Your task to perform on an android device: Open Maps and search for coffee Image 0: 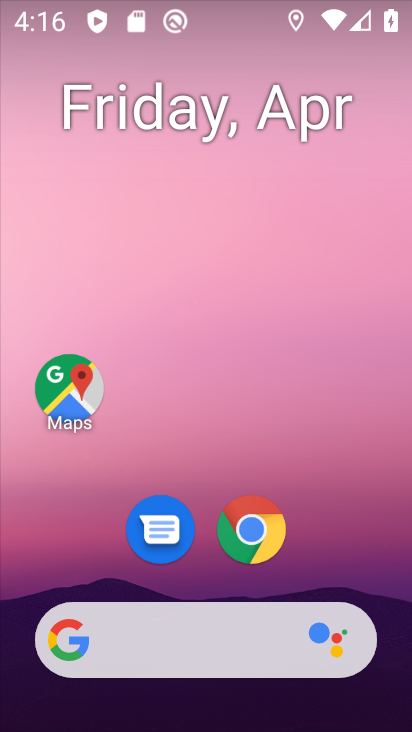
Step 0: drag from (231, 724) to (220, 151)
Your task to perform on an android device: Open Maps and search for coffee Image 1: 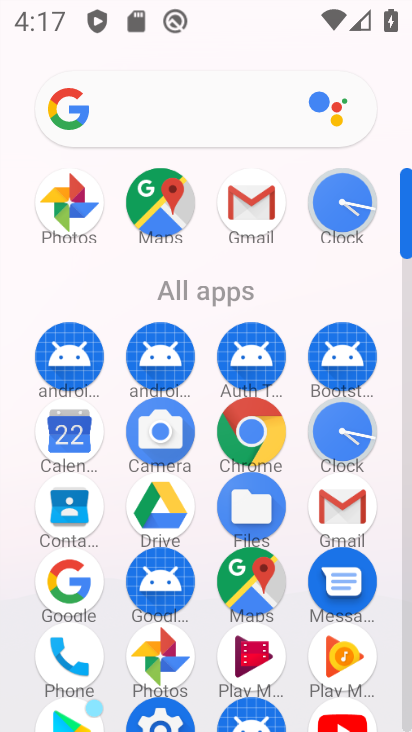
Step 1: click (248, 582)
Your task to perform on an android device: Open Maps and search for coffee Image 2: 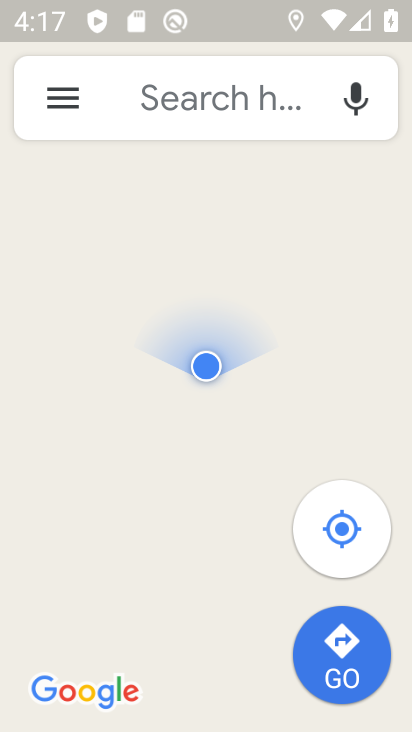
Step 2: click (163, 117)
Your task to perform on an android device: Open Maps and search for coffee Image 3: 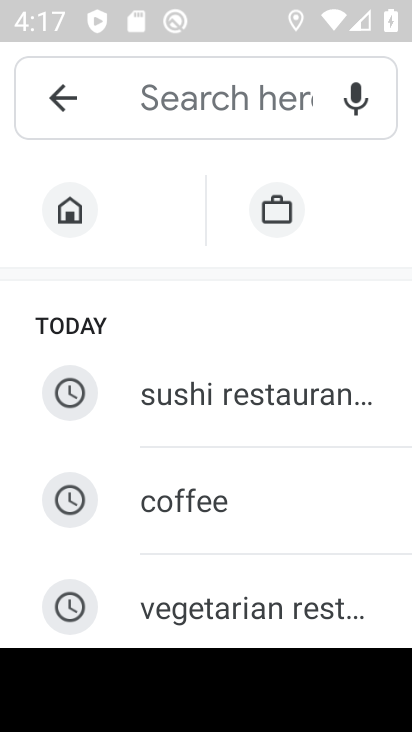
Step 3: type "coffee"
Your task to perform on an android device: Open Maps and search for coffee Image 4: 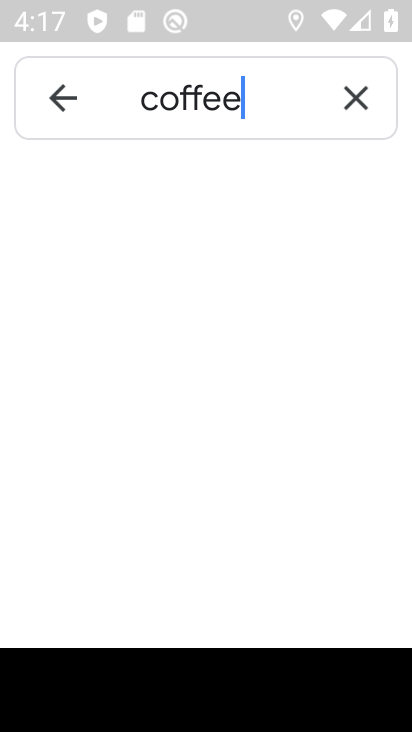
Step 4: type ""
Your task to perform on an android device: Open Maps and search for coffee Image 5: 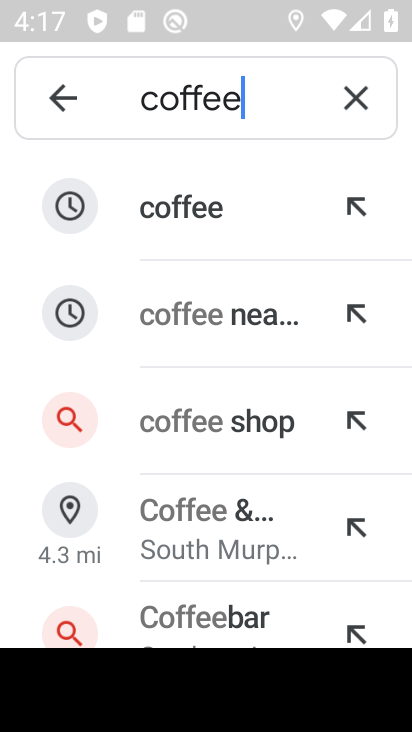
Step 5: click (179, 208)
Your task to perform on an android device: Open Maps and search for coffee Image 6: 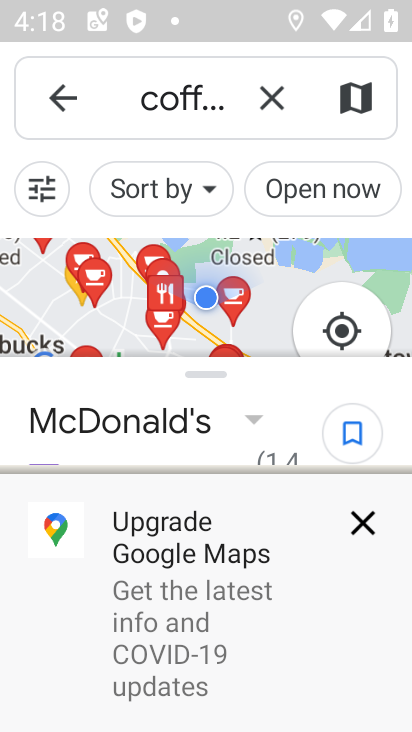
Step 6: task complete